Your task to perform on an android device: Go to calendar. Show me events next week Image 0: 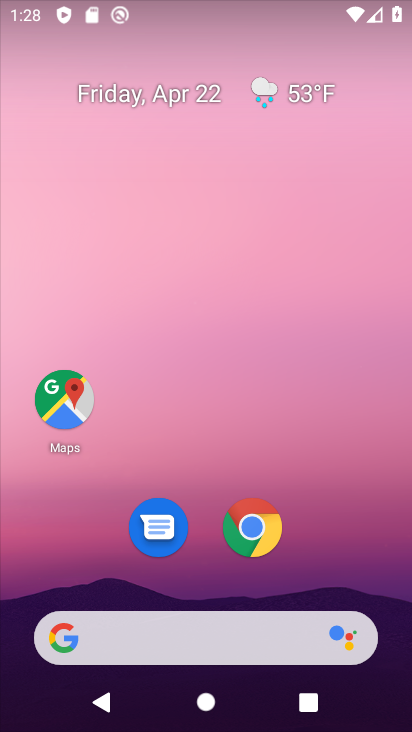
Step 0: drag from (364, 616) to (329, 6)
Your task to perform on an android device: Go to calendar. Show me events next week Image 1: 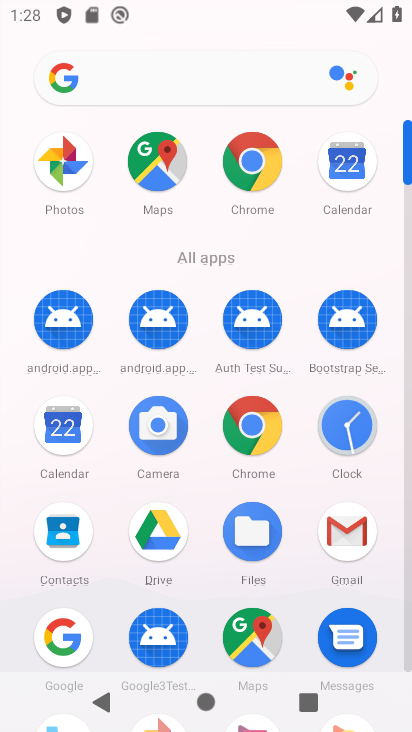
Step 1: click (60, 413)
Your task to perform on an android device: Go to calendar. Show me events next week Image 2: 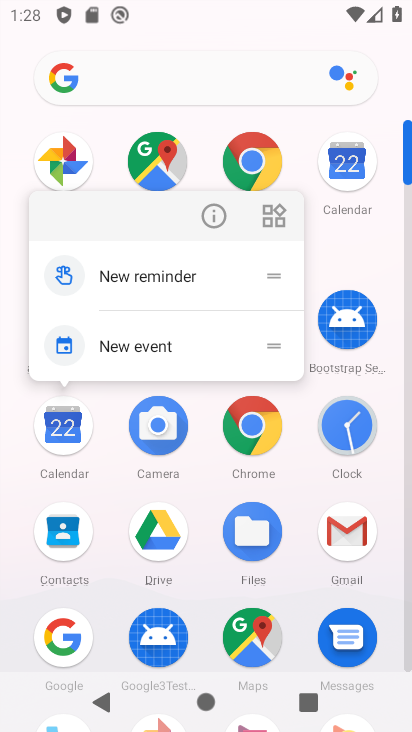
Step 2: click (64, 441)
Your task to perform on an android device: Go to calendar. Show me events next week Image 3: 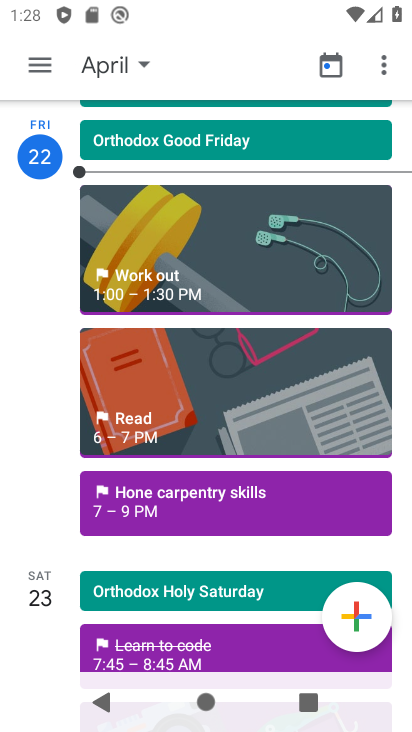
Step 3: click (111, 68)
Your task to perform on an android device: Go to calendar. Show me events next week Image 4: 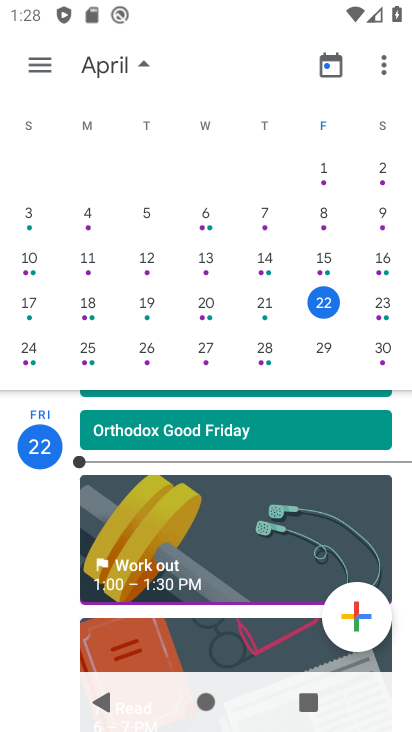
Step 4: click (150, 354)
Your task to perform on an android device: Go to calendar. Show me events next week Image 5: 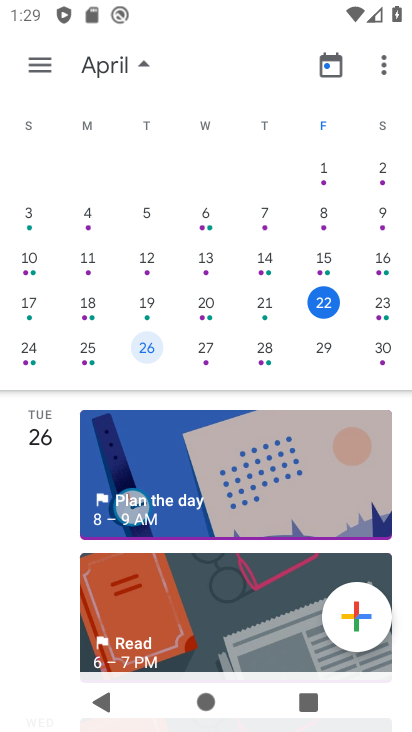
Step 5: click (56, 62)
Your task to perform on an android device: Go to calendar. Show me events next week Image 6: 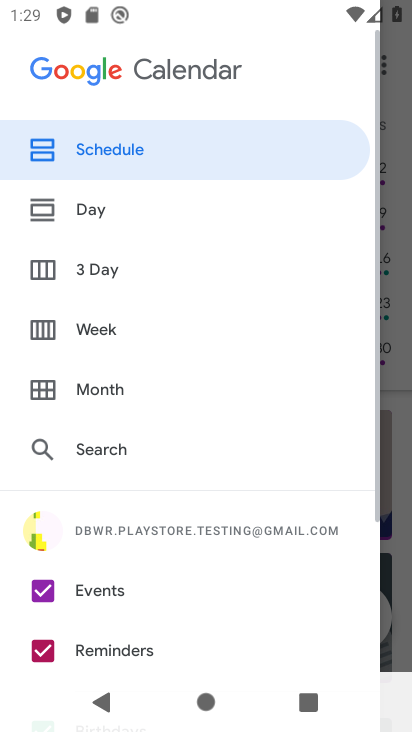
Step 6: click (112, 333)
Your task to perform on an android device: Go to calendar. Show me events next week Image 7: 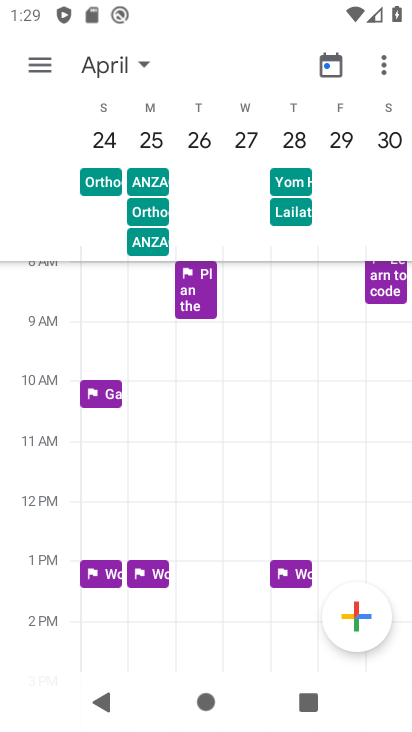
Step 7: task complete